Your task to perform on an android device: manage bookmarks in the chrome app Image 0: 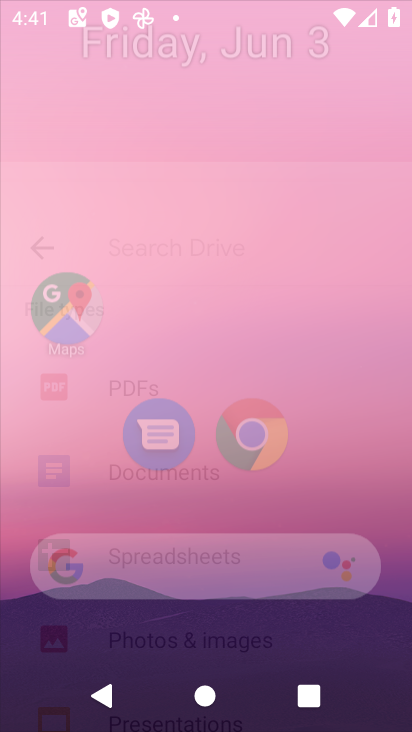
Step 0: click (286, 40)
Your task to perform on an android device: manage bookmarks in the chrome app Image 1: 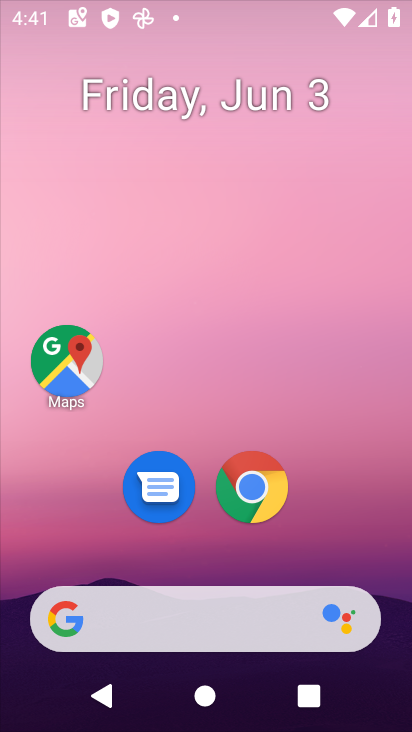
Step 1: drag from (203, 471) to (230, 86)
Your task to perform on an android device: manage bookmarks in the chrome app Image 2: 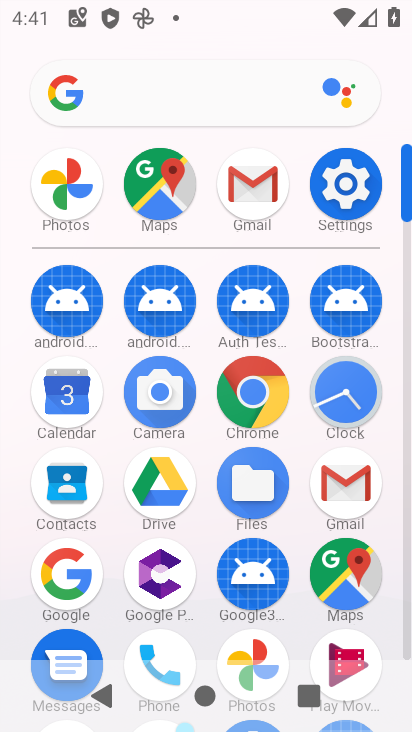
Step 2: click (267, 378)
Your task to perform on an android device: manage bookmarks in the chrome app Image 3: 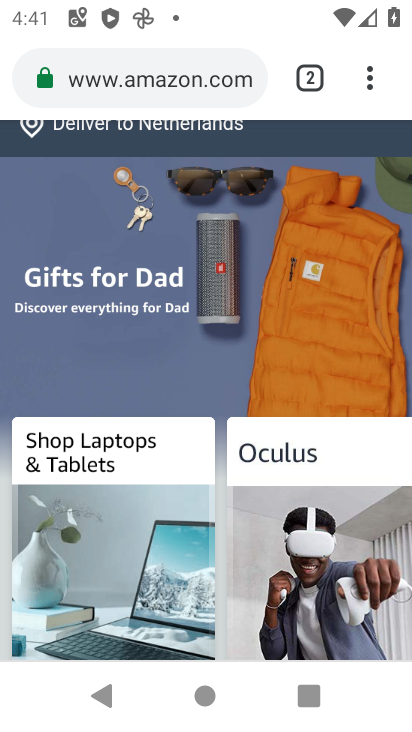
Step 3: drag from (259, 495) to (320, 210)
Your task to perform on an android device: manage bookmarks in the chrome app Image 4: 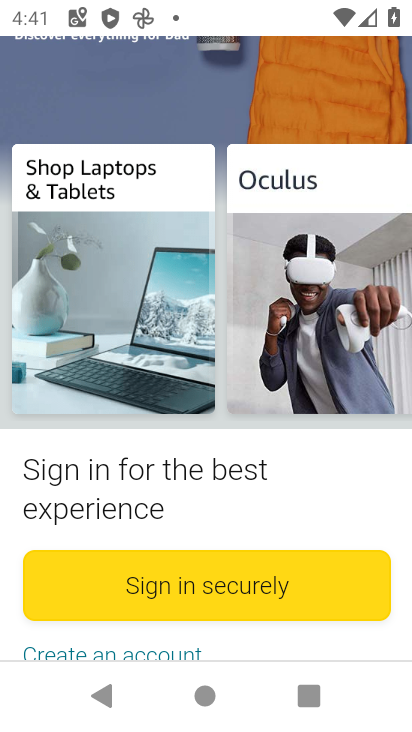
Step 4: drag from (339, 101) to (407, 376)
Your task to perform on an android device: manage bookmarks in the chrome app Image 5: 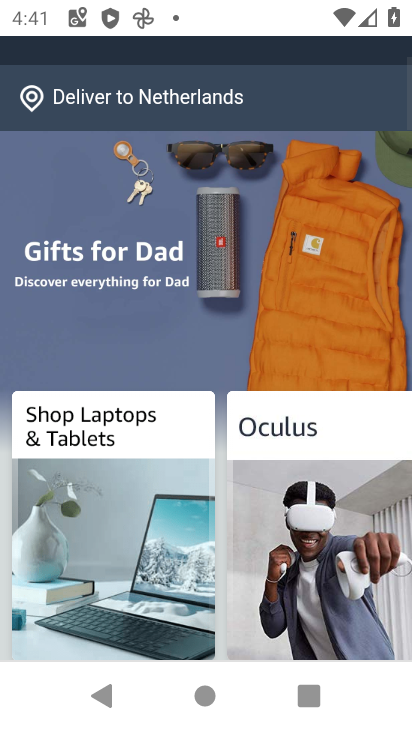
Step 5: click (359, 64)
Your task to perform on an android device: manage bookmarks in the chrome app Image 6: 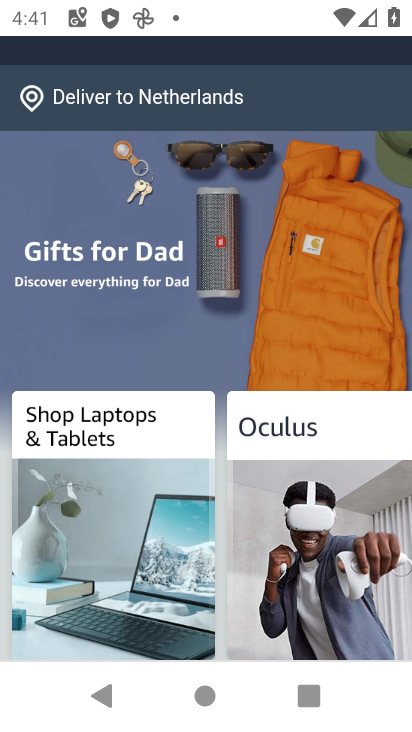
Step 6: task complete